Your task to perform on an android device: What's the weather like in Singapore? Image 0: 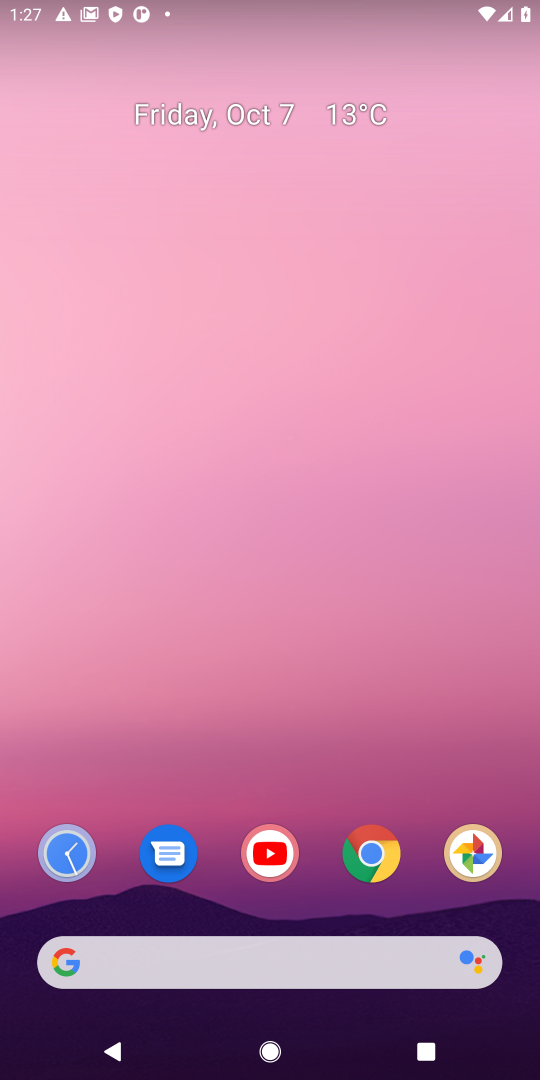
Step 0: click (315, 963)
Your task to perform on an android device: What's the weather like in Singapore? Image 1: 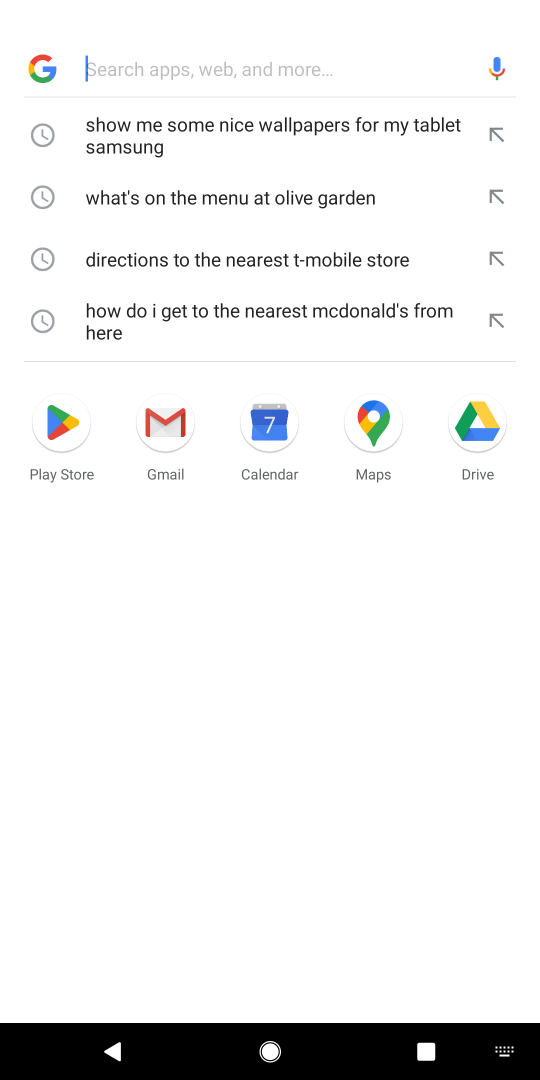
Step 1: type "What's the weather like in Singapore?"
Your task to perform on an android device: What's the weather like in Singapore? Image 2: 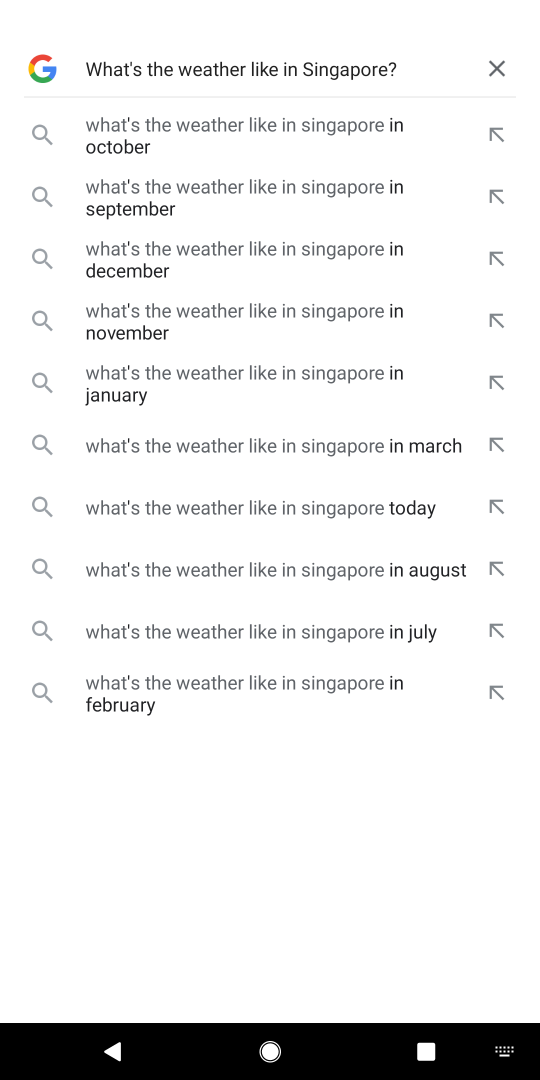
Step 2: click (278, 137)
Your task to perform on an android device: What's the weather like in Singapore? Image 3: 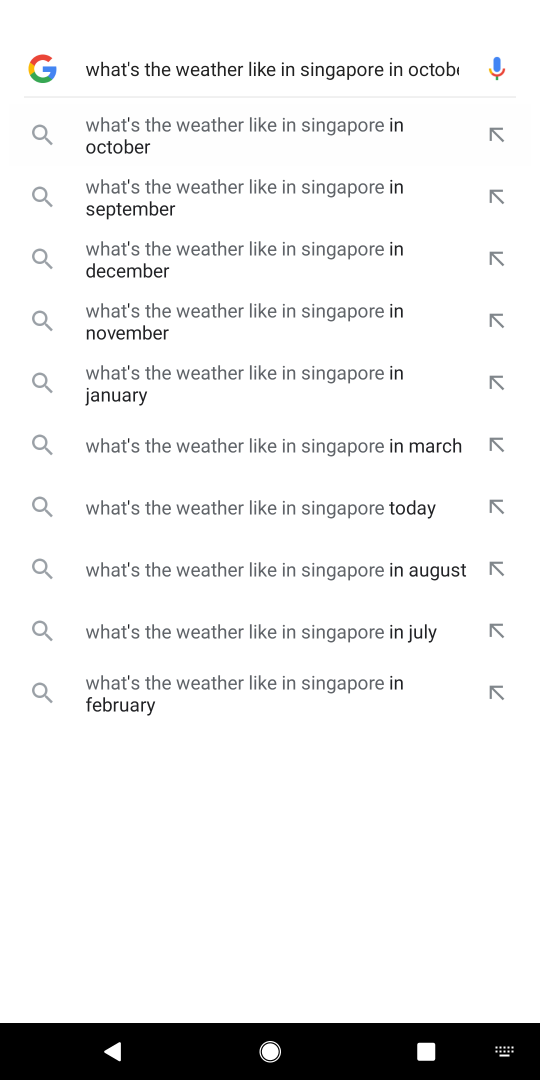
Step 3: task complete